Your task to perform on an android device: Open Google Chrome Image 0: 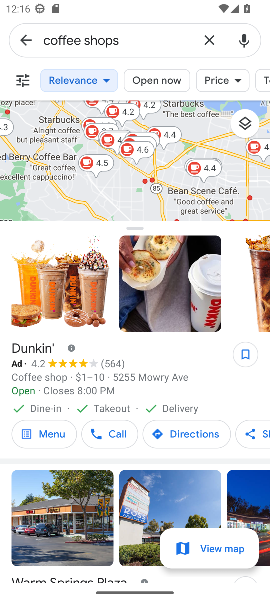
Step 0: press home button
Your task to perform on an android device: Open Google Chrome Image 1: 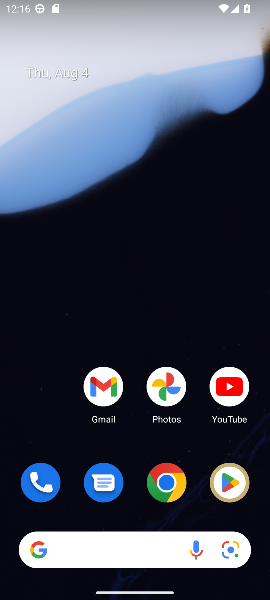
Step 1: click (176, 464)
Your task to perform on an android device: Open Google Chrome Image 2: 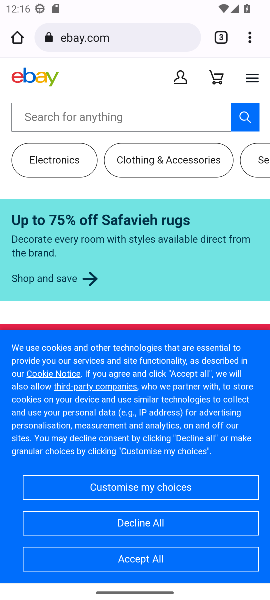
Step 2: task complete